Your task to perform on an android device: open chrome privacy settings Image 0: 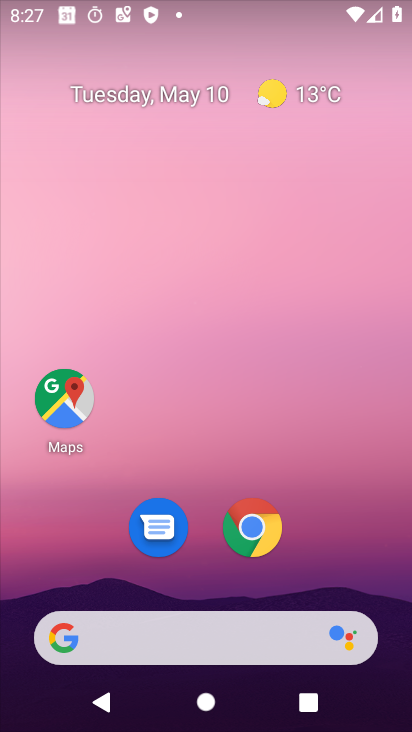
Step 0: click (249, 524)
Your task to perform on an android device: open chrome privacy settings Image 1: 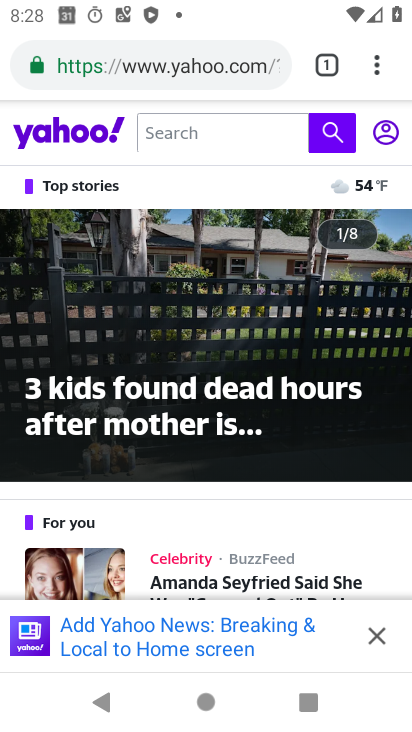
Step 1: click (365, 68)
Your task to perform on an android device: open chrome privacy settings Image 2: 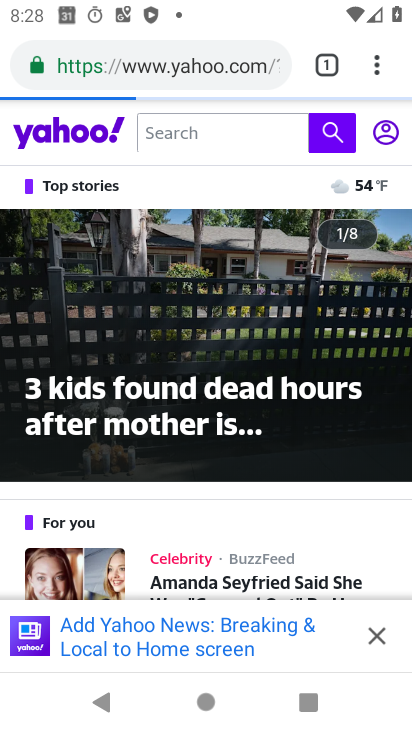
Step 2: click (372, 61)
Your task to perform on an android device: open chrome privacy settings Image 3: 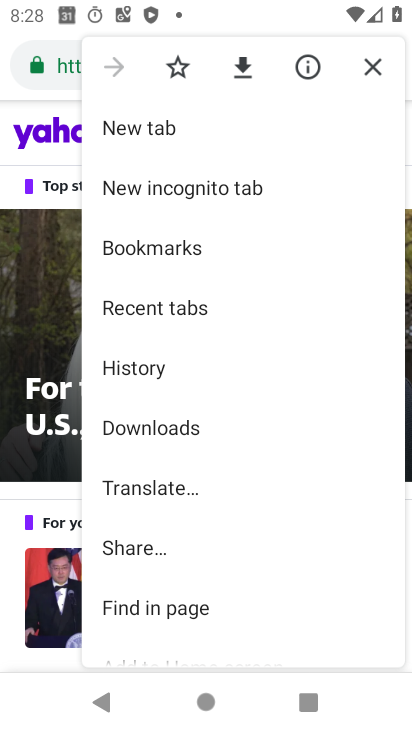
Step 3: drag from (144, 589) to (210, 163)
Your task to perform on an android device: open chrome privacy settings Image 4: 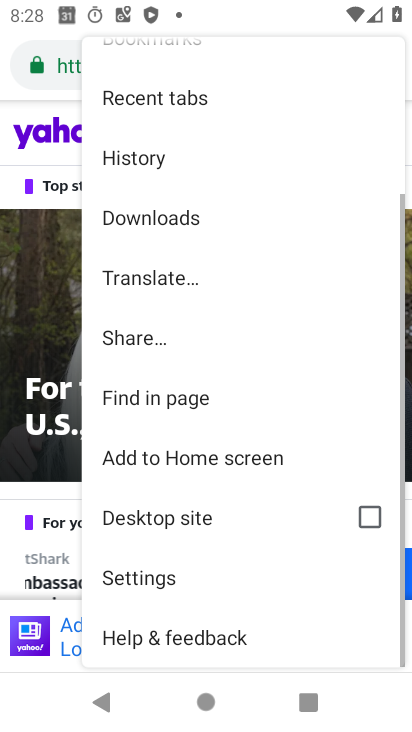
Step 4: click (168, 579)
Your task to perform on an android device: open chrome privacy settings Image 5: 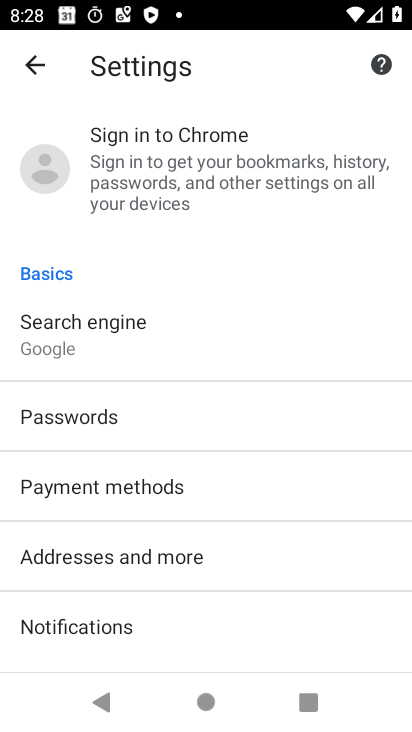
Step 5: drag from (144, 623) to (255, 176)
Your task to perform on an android device: open chrome privacy settings Image 6: 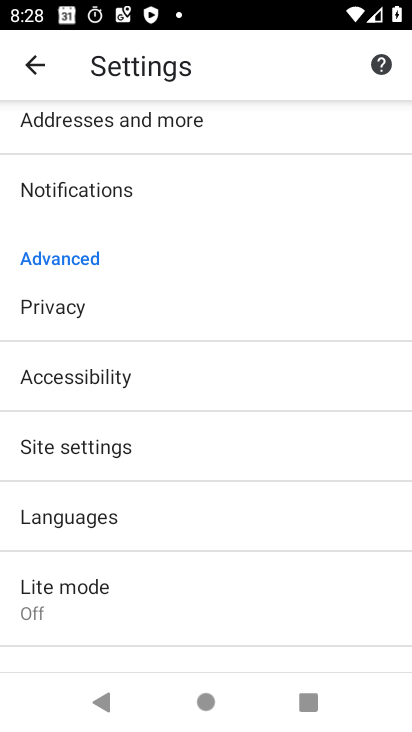
Step 6: click (71, 302)
Your task to perform on an android device: open chrome privacy settings Image 7: 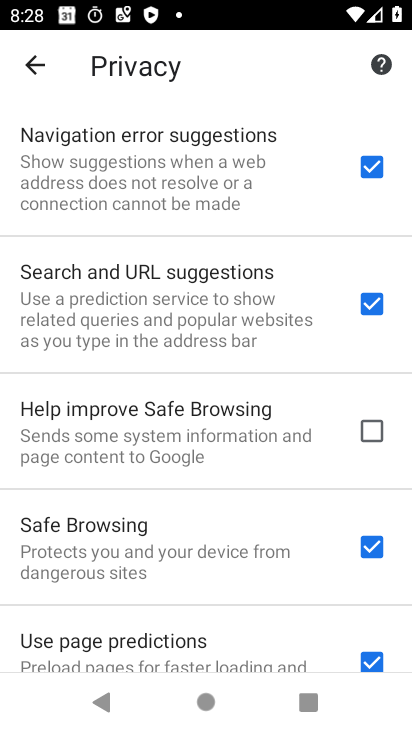
Step 7: task complete